Your task to perform on an android device: Go to sound settings Image 0: 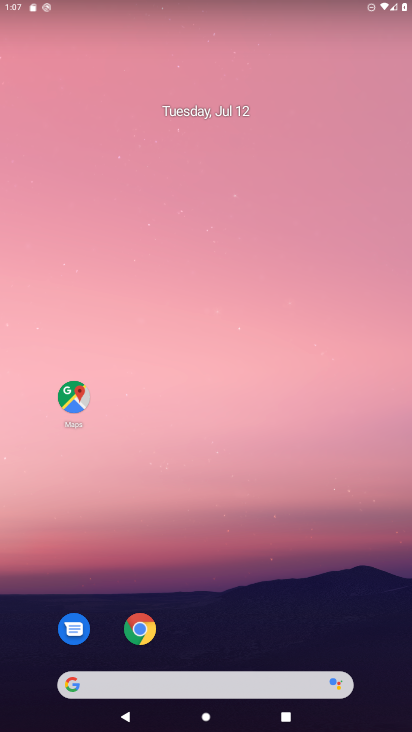
Step 0: press home button
Your task to perform on an android device: Go to sound settings Image 1: 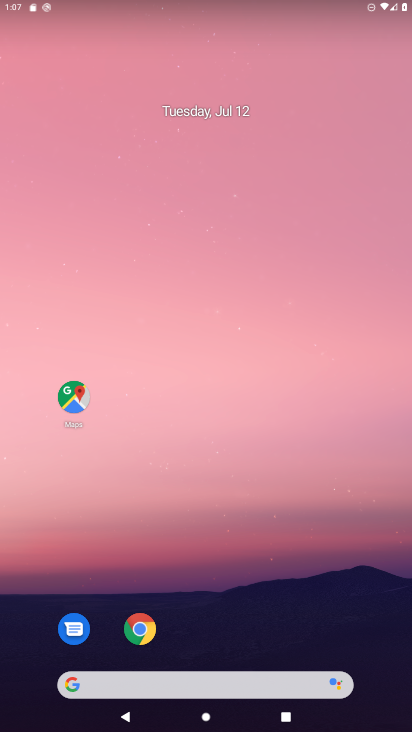
Step 1: drag from (216, 644) to (248, 100)
Your task to perform on an android device: Go to sound settings Image 2: 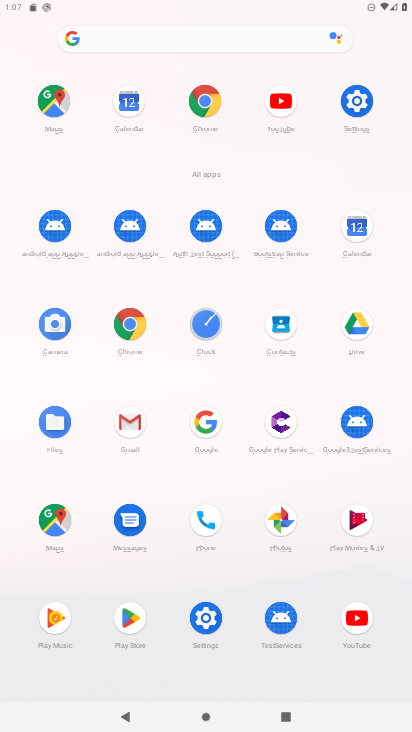
Step 2: click (359, 98)
Your task to perform on an android device: Go to sound settings Image 3: 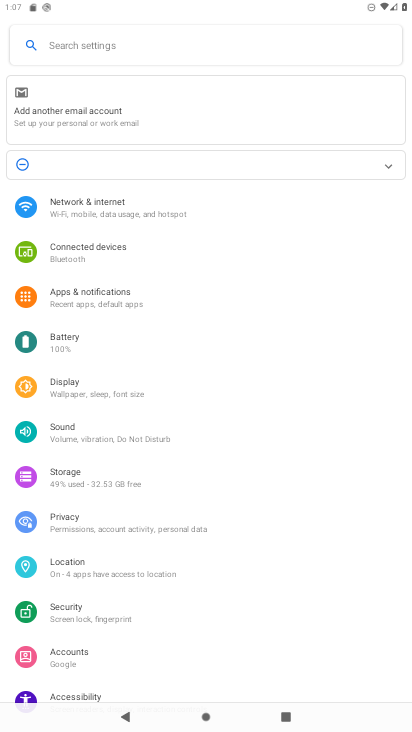
Step 3: click (86, 429)
Your task to perform on an android device: Go to sound settings Image 4: 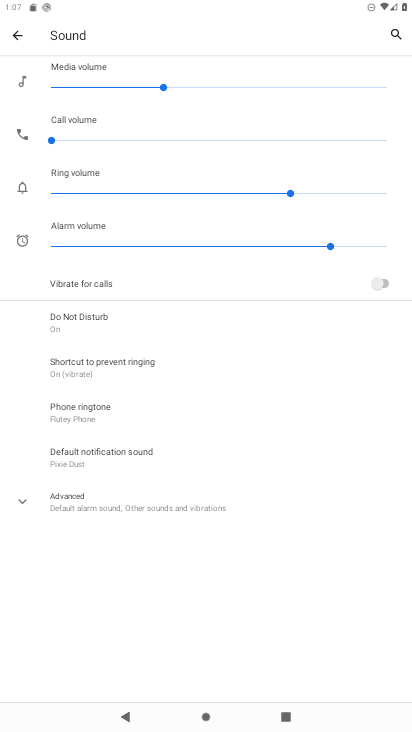
Step 4: click (28, 494)
Your task to perform on an android device: Go to sound settings Image 5: 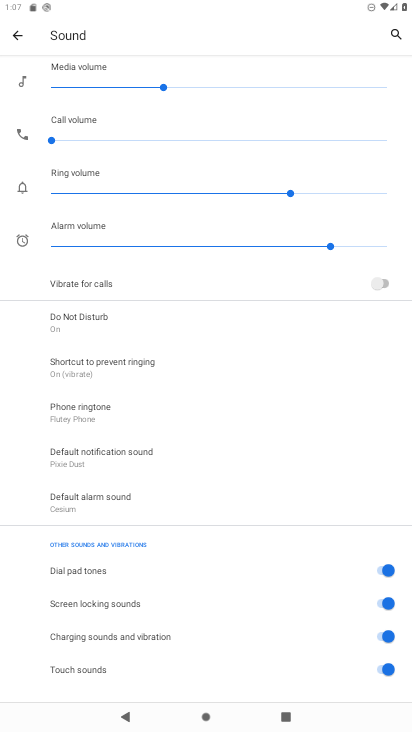
Step 5: task complete